Your task to perform on an android device: Open the clock app Image 0: 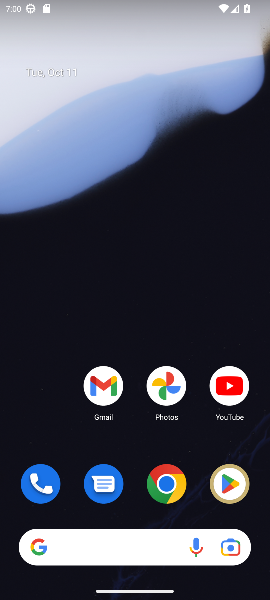
Step 0: drag from (127, 550) to (203, 74)
Your task to perform on an android device: Open the clock app Image 1: 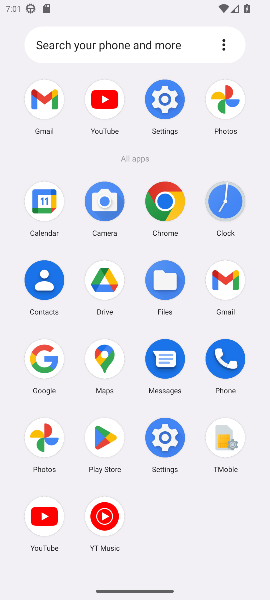
Step 1: click (226, 201)
Your task to perform on an android device: Open the clock app Image 2: 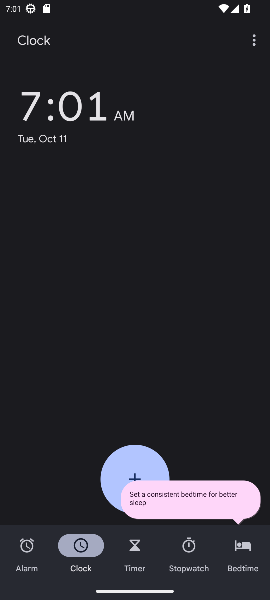
Step 2: task complete